Your task to perform on an android device: delete a single message in the gmail app Image 0: 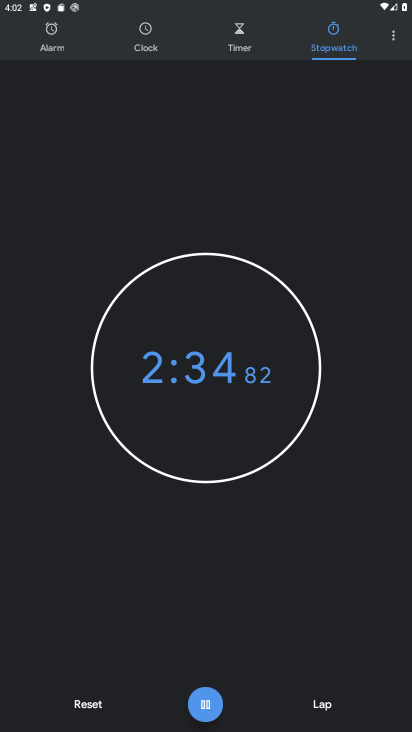
Step 0: press home button
Your task to perform on an android device: delete a single message in the gmail app Image 1: 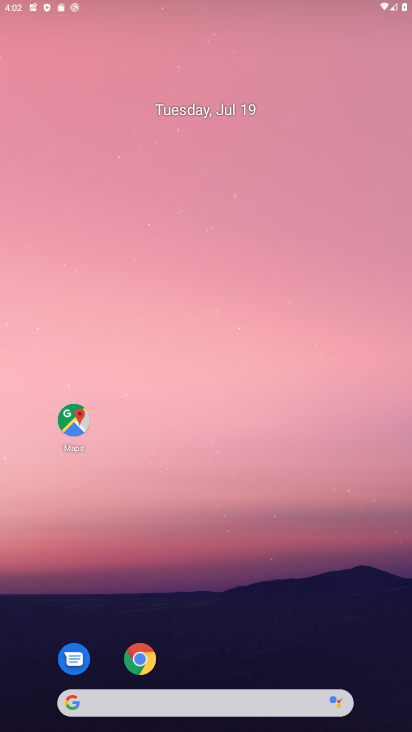
Step 1: drag from (282, 653) to (261, 77)
Your task to perform on an android device: delete a single message in the gmail app Image 2: 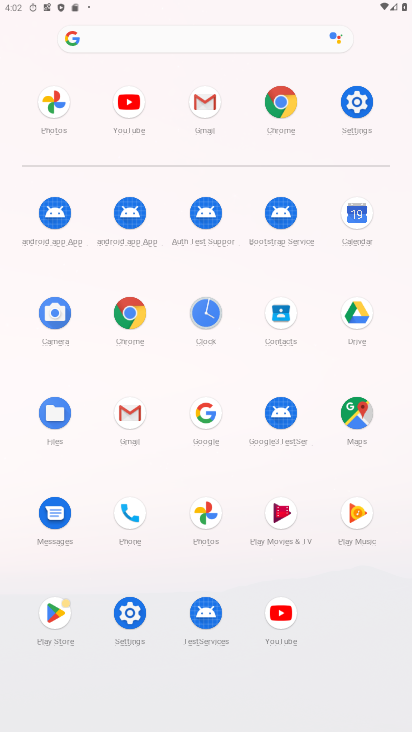
Step 2: click (206, 100)
Your task to perform on an android device: delete a single message in the gmail app Image 3: 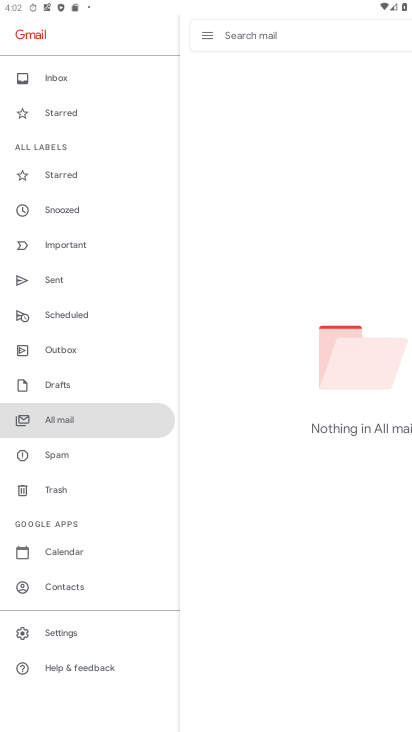
Step 3: click (55, 82)
Your task to perform on an android device: delete a single message in the gmail app Image 4: 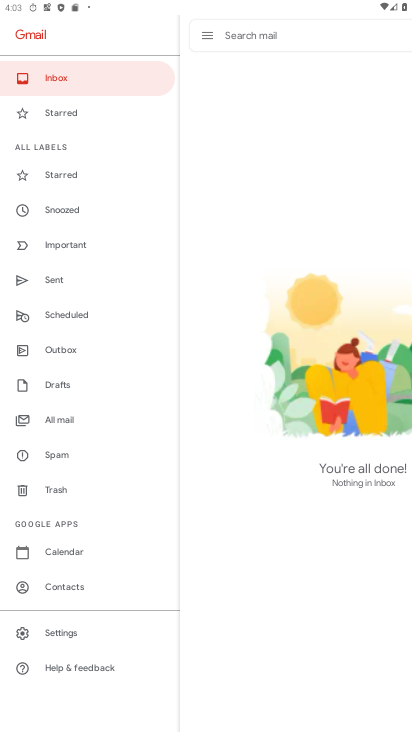
Step 4: task complete